Your task to perform on an android device: toggle wifi Image 0: 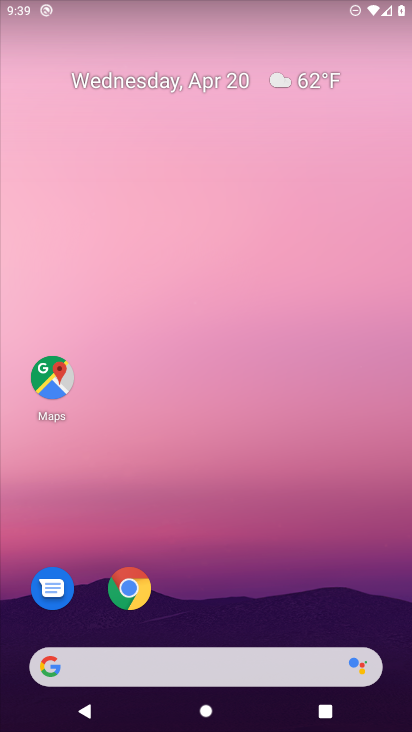
Step 0: drag from (218, 625) to (246, 0)
Your task to perform on an android device: toggle wifi Image 1: 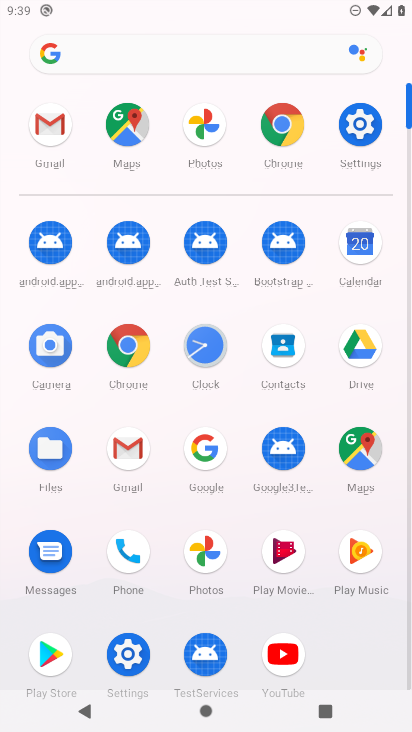
Step 1: click (362, 114)
Your task to perform on an android device: toggle wifi Image 2: 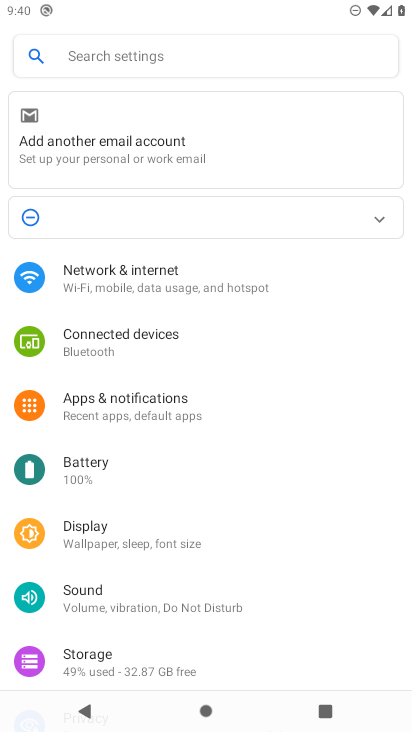
Step 2: click (187, 273)
Your task to perform on an android device: toggle wifi Image 3: 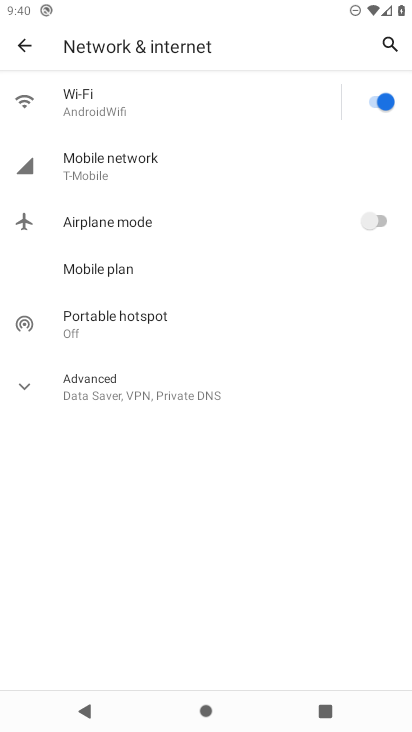
Step 3: click (381, 93)
Your task to perform on an android device: toggle wifi Image 4: 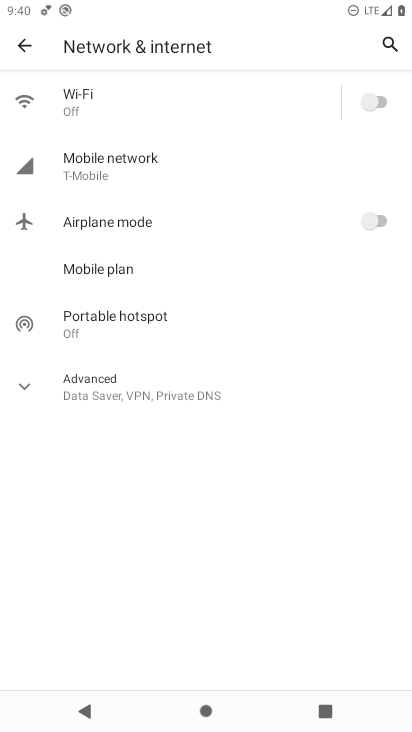
Step 4: task complete